Your task to perform on an android device: toggle javascript in the chrome app Image 0: 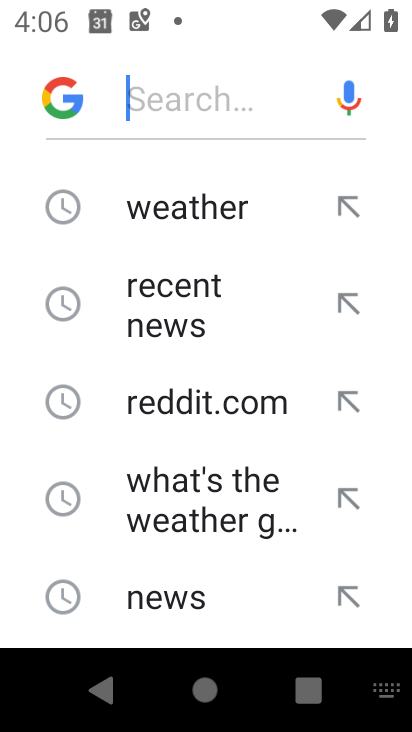
Step 0: press home button
Your task to perform on an android device: toggle javascript in the chrome app Image 1: 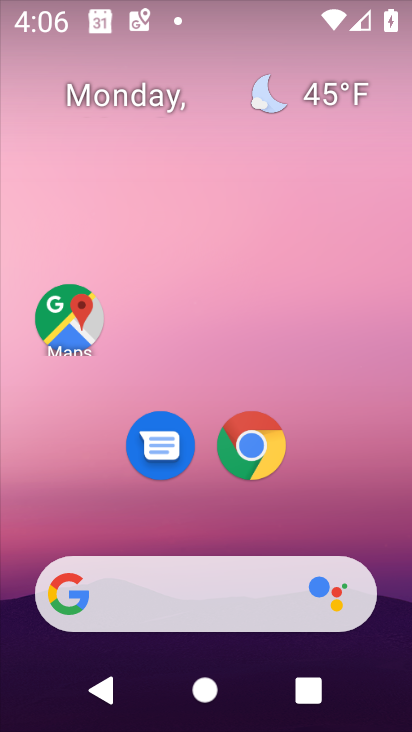
Step 1: click (271, 448)
Your task to perform on an android device: toggle javascript in the chrome app Image 2: 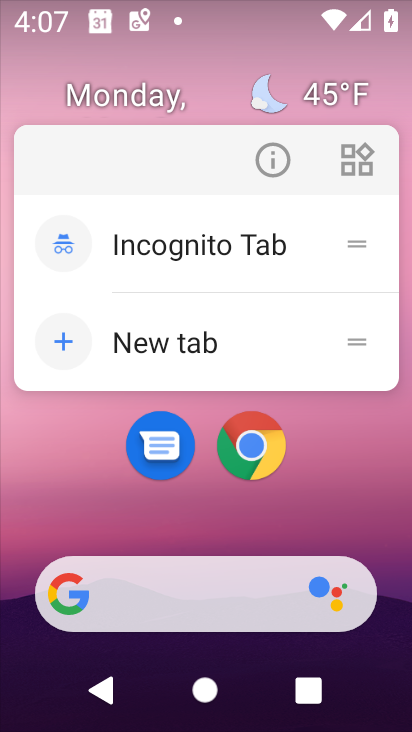
Step 2: click (262, 445)
Your task to perform on an android device: toggle javascript in the chrome app Image 3: 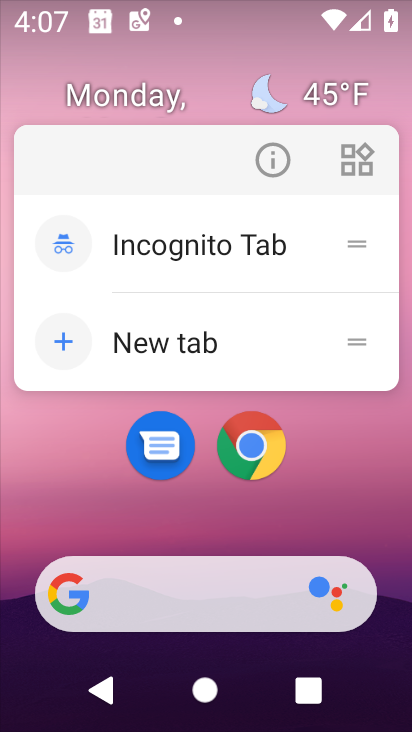
Step 3: click (262, 445)
Your task to perform on an android device: toggle javascript in the chrome app Image 4: 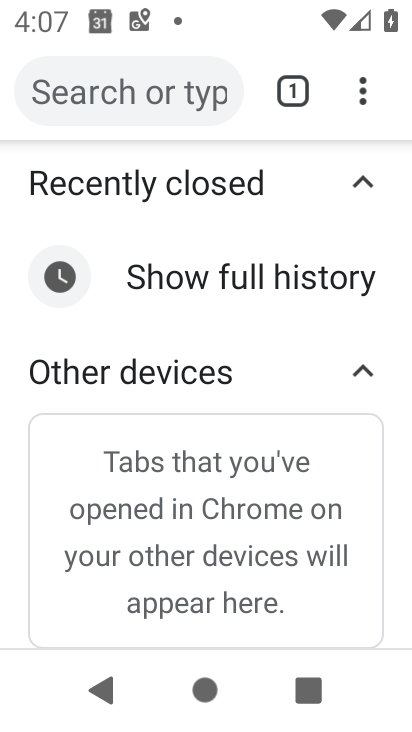
Step 4: click (352, 102)
Your task to perform on an android device: toggle javascript in the chrome app Image 5: 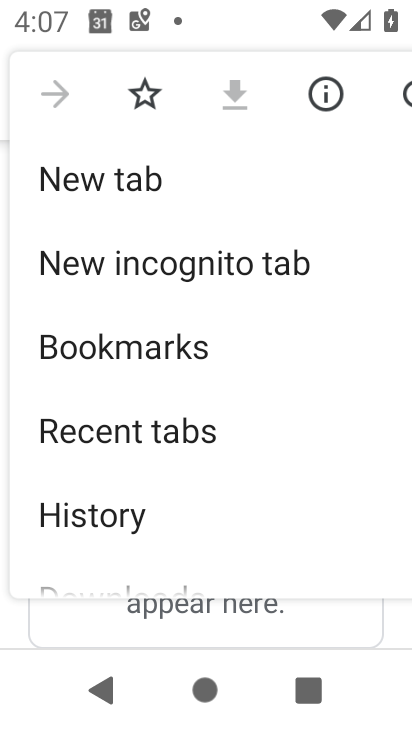
Step 5: drag from (205, 491) to (207, 187)
Your task to perform on an android device: toggle javascript in the chrome app Image 6: 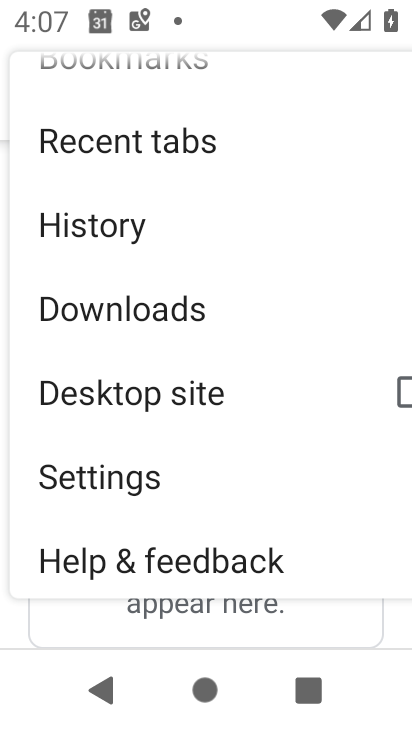
Step 6: drag from (268, 499) to (291, 226)
Your task to perform on an android device: toggle javascript in the chrome app Image 7: 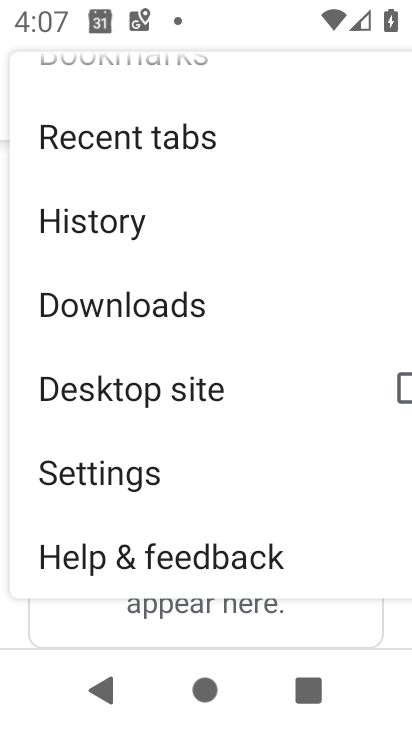
Step 7: click (180, 476)
Your task to perform on an android device: toggle javascript in the chrome app Image 8: 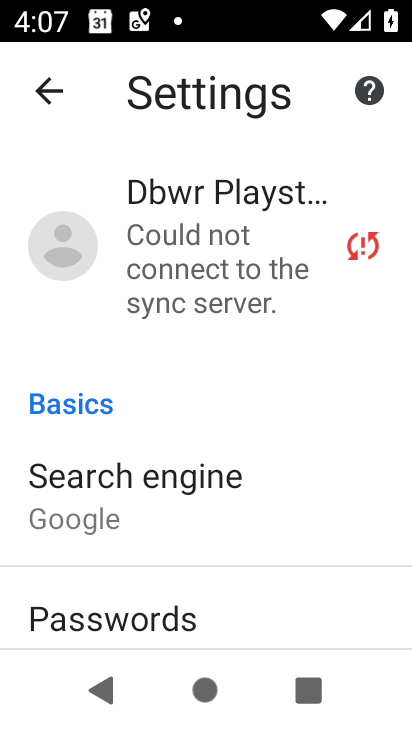
Step 8: drag from (198, 565) to (255, 175)
Your task to perform on an android device: toggle javascript in the chrome app Image 9: 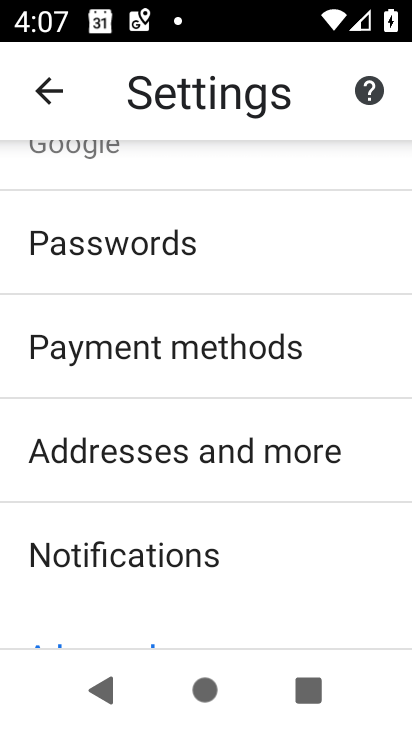
Step 9: drag from (248, 520) to (276, 209)
Your task to perform on an android device: toggle javascript in the chrome app Image 10: 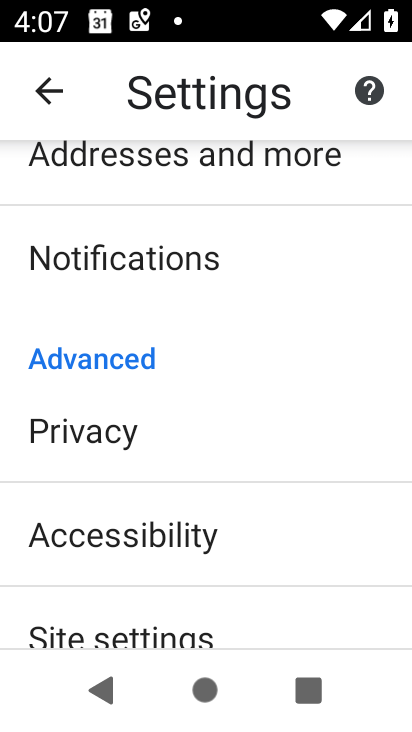
Step 10: drag from (201, 497) to (230, 249)
Your task to perform on an android device: toggle javascript in the chrome app Image 11: 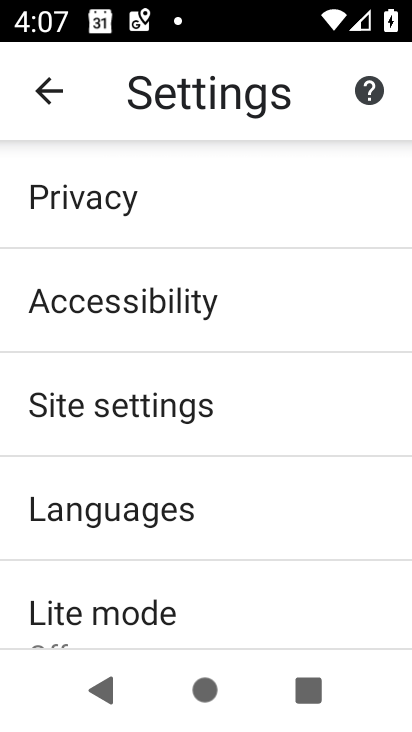
Step 11: click (211, 408)
Your task to perform on an android device: toggle javascript in the chrome app Image 12: 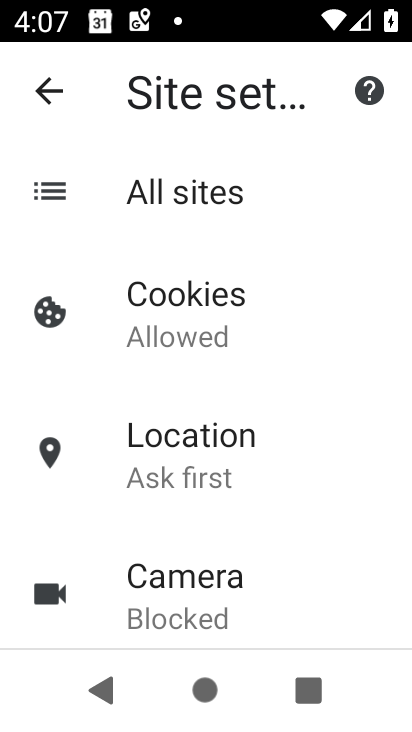
Step 12: drag from (219, 585) to (323, 206)
Your task to perform on an android device: toggle javascript in the chrome app Image 13: 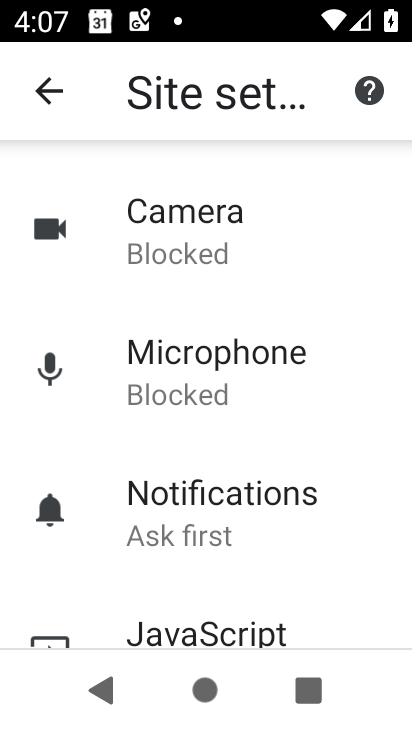
Step 13: drag from (256, 574) to (257, 395)
Your task to perform on an android device: toggle javascript in the chrome app Image 14: 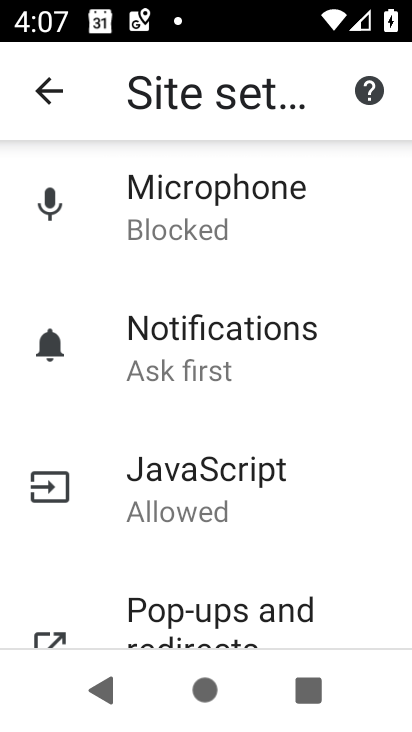
Step 14: click (243, 464)
Your task to perform on an android device: toggle javascript in the chrome app Image 15: 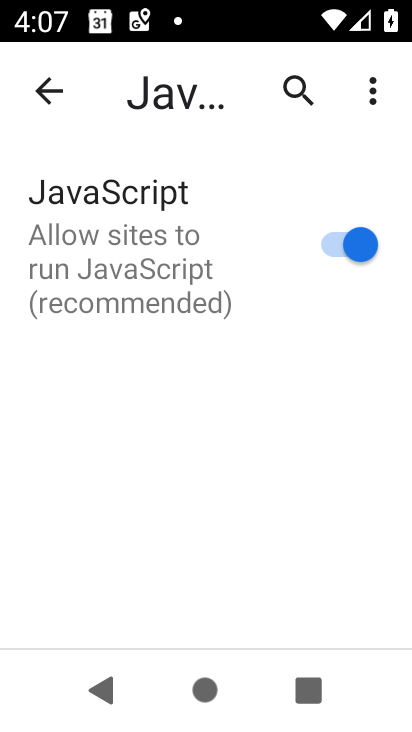
Step 15: click (359, 238)
Your task to perform on an android device: toggle javascript in the chrome app Image 16: 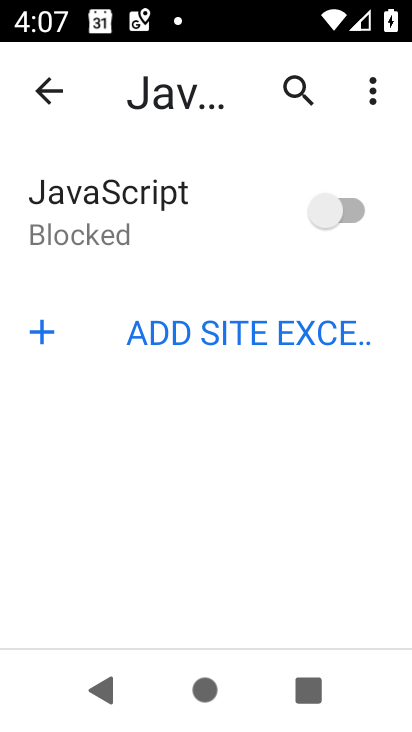
Step 16: task complete